Your task to perform on an android device: find which apps use the phone's location Image 0: 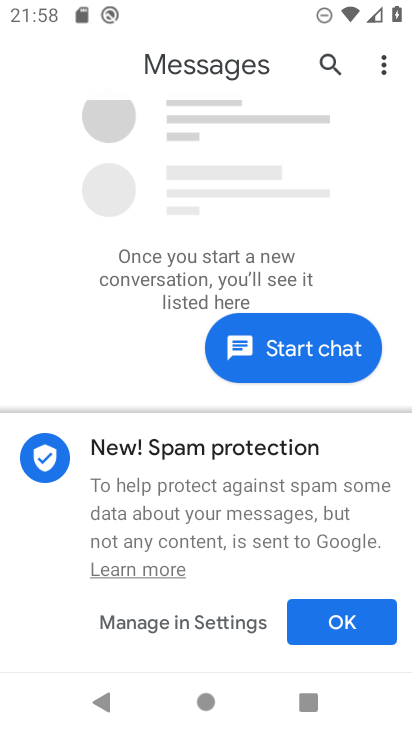
Step 0: press home button
Your task to perform on an android device: find which apps use the phone's location Image 1: 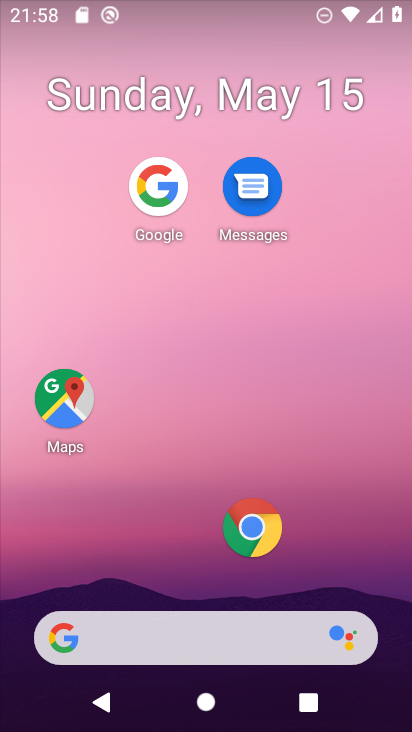
Step 1: drag from (143, 647) to (239, 156)
Your task to perform on an android device: find which apps use the phone's location Image 2: 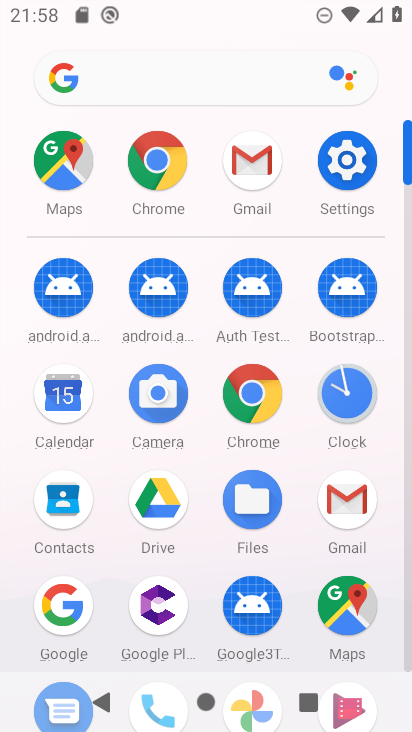
Step 2: click (351, 177)
Your task to perform on an android device: find which apps use the phone's location Image 3: 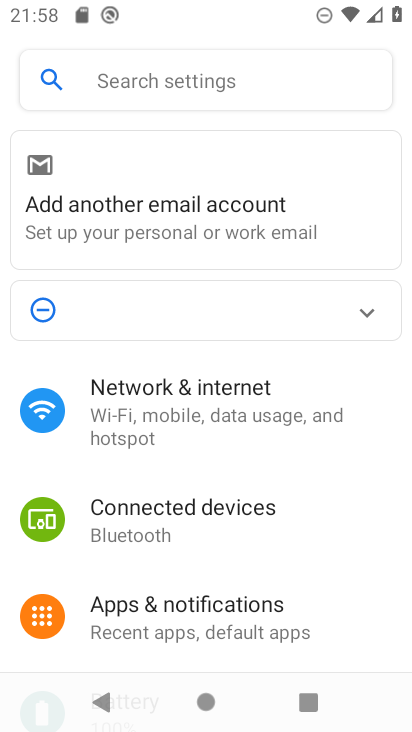
Step 3: drag from (214, 621) to (321, 114)
Your task to perform on an android device: find which apps use the phone's location Image 4: 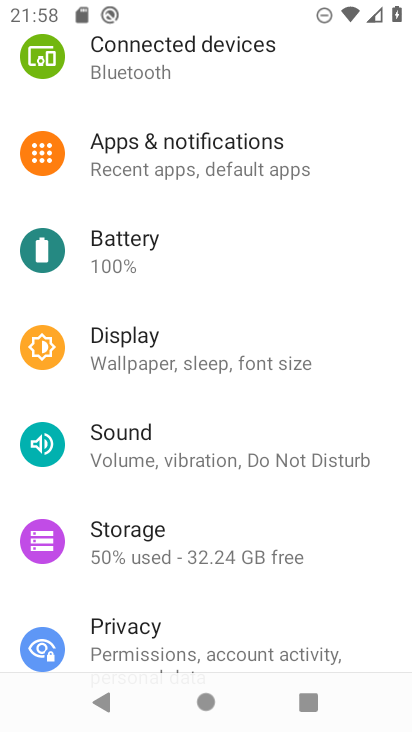
Step 4: drag from (181, 616) to (282, 149)
Your task to perform on an android device: find which apps use the phone's location Image 5: 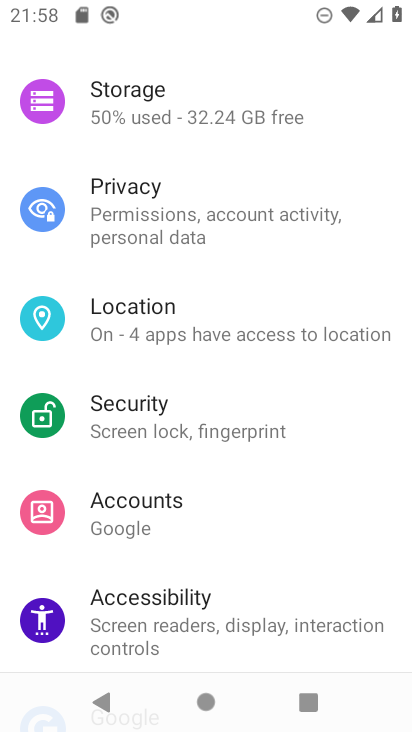
Step 5: click (155, 304)
Your task to perform on an android device: find which apps use the phone's location Image 6: 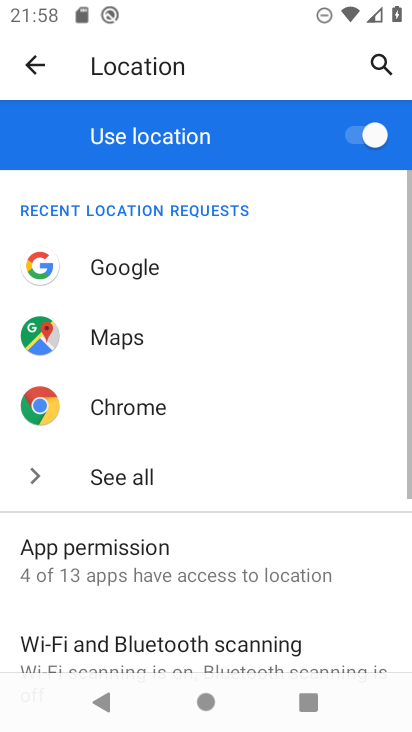
Step 6: click (122, 578)
Your task to perform on an android device: find which apps use the phone's location Image 7: 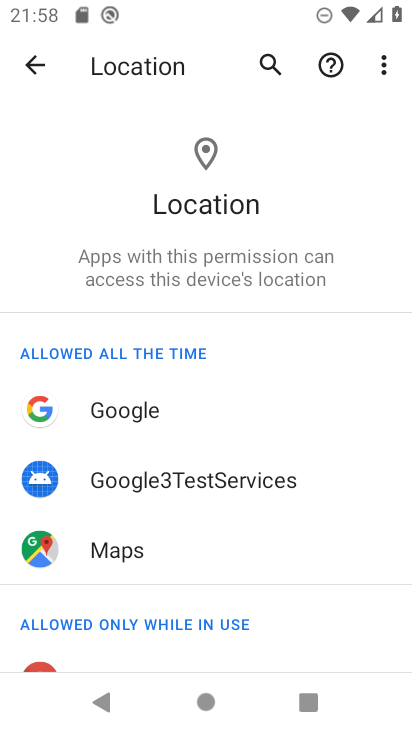
Step 7: drag from (188, 585) to (249, 316)
Your task to perform on an android device: find which apps use the phone's location Image 8: 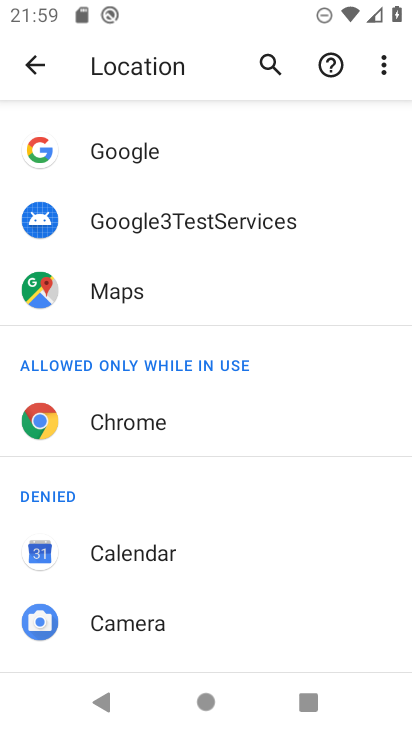
Step 8: drag from (206, 629) to (298, 246)
Your task to perform on an android device: find which apps use the phone's location Image 9: 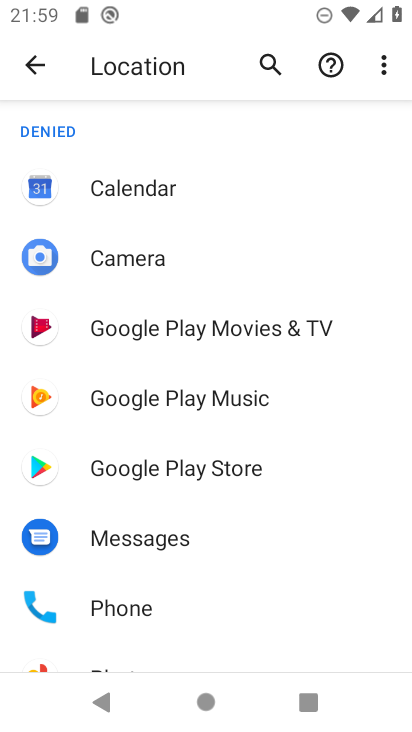
Step 9: click (138, 611)
Your task to perform on an android device: find which apps use the phone's location Image 10: 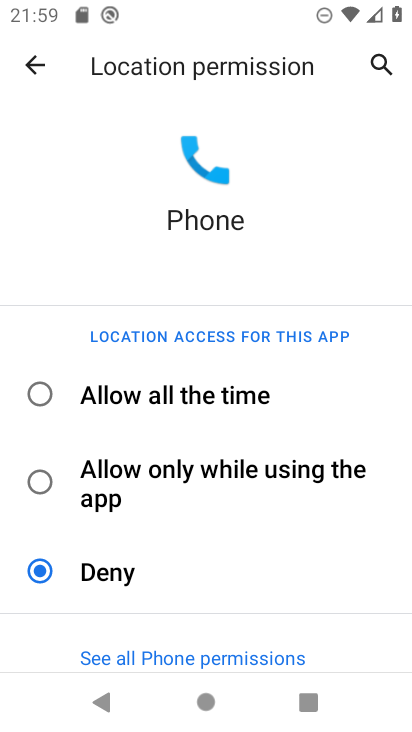
Step 10: task complete